Your task to perform on an android device: Show the shopping cart on ebay.com. Image 0: 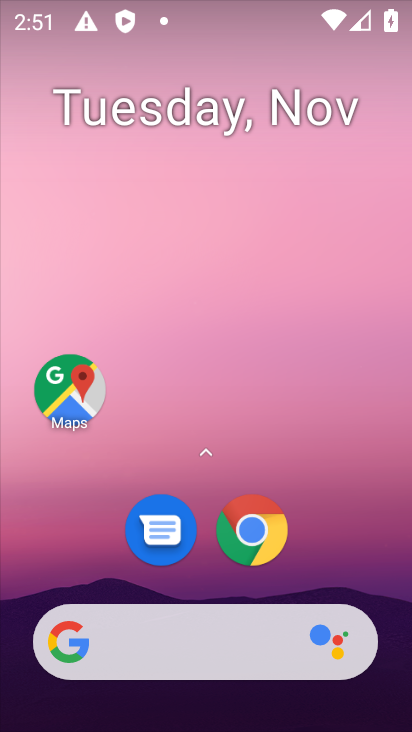
Step 0: drag from (245, 690) to (255, 117)
Your task to perform on an android device: Show the shopping cart on ebay.com. Image 1: 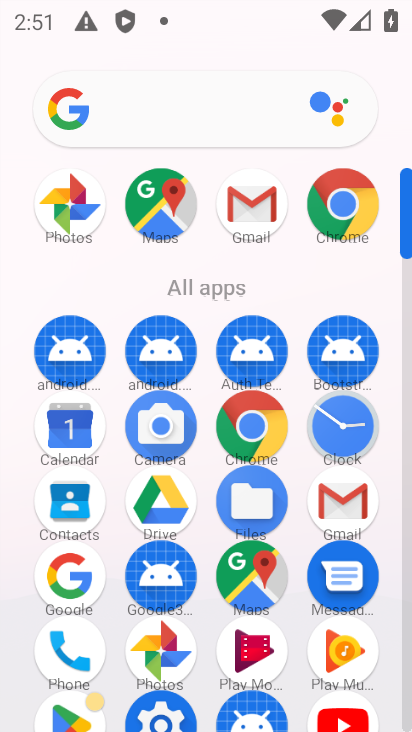
Step 1: click (248, 420)
Your task to perform on an android device: Show the shopping cart on ebay.com. Image 2: 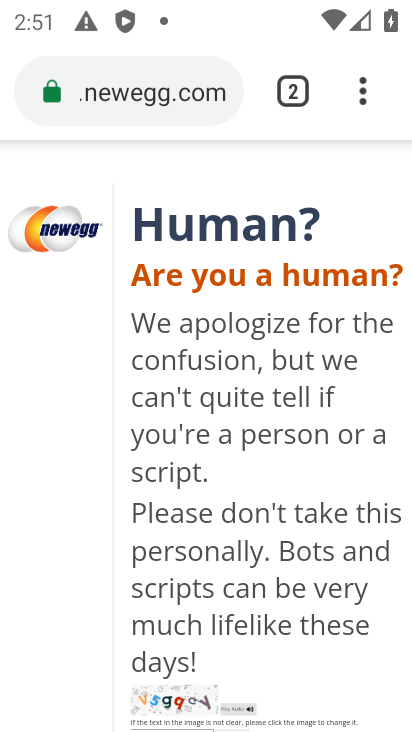
Step 2: click (126, 94)
Your task to perform on an android device: Show the shopping cart on ebay.com. Image 3: 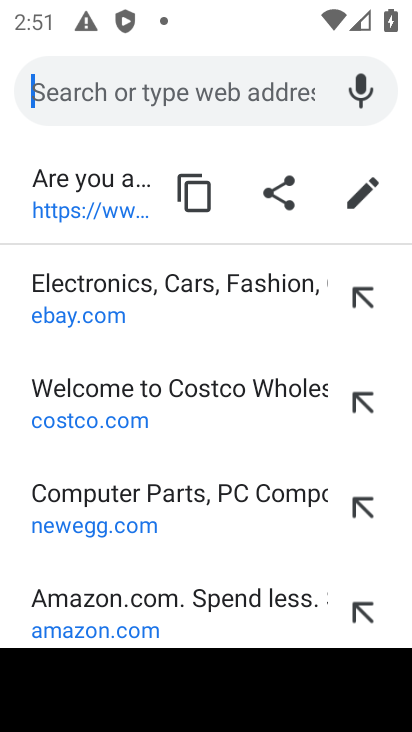
Step 3: type "ebay.com."
Your task to perform on an android device: Show the shopping cart on ebay.com. Image 4: 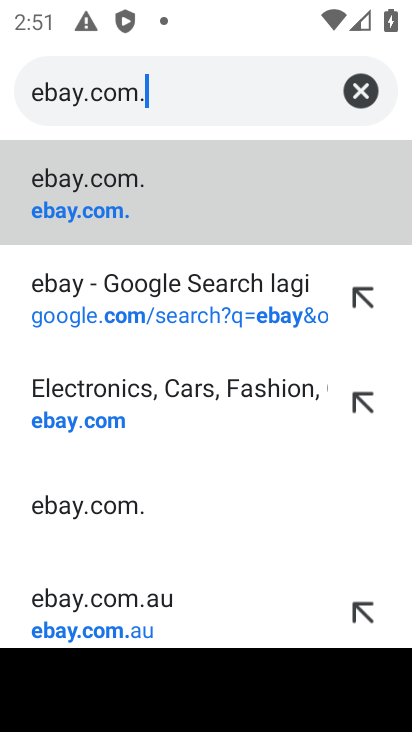
Step 4: click (78, 214)
Your task to perform on an android device: Show the shopping cart on ebay.com. Image 5: 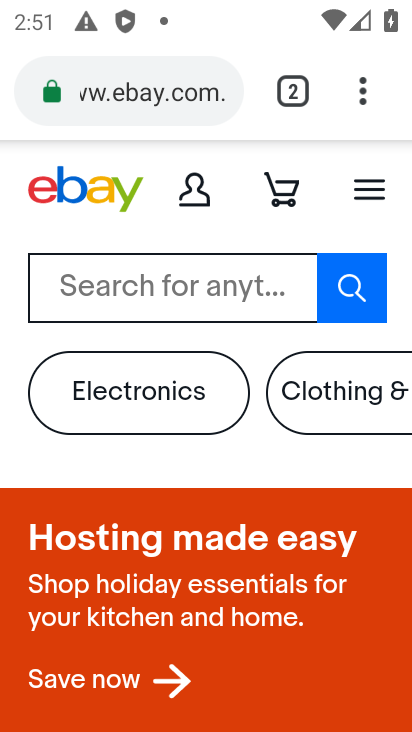
Step 5: click (128, 275)
Your task to perform on an android device: Show the shopping cart on ebay.com. Image 6: 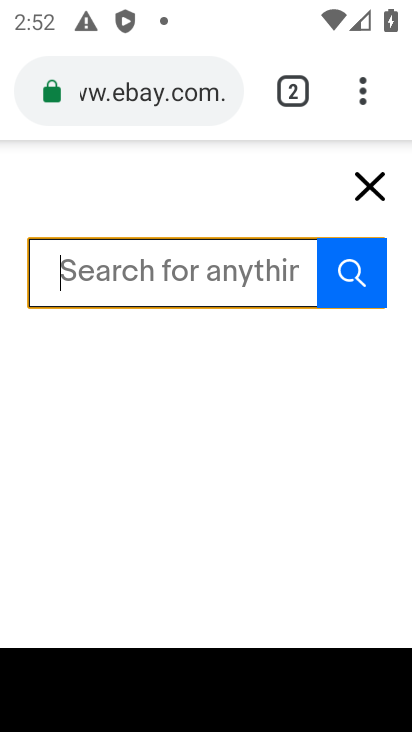
Step 6: click (372, 182)
Your task to perform on an android device: Show the shopping cart on ebay.com. Image 7: 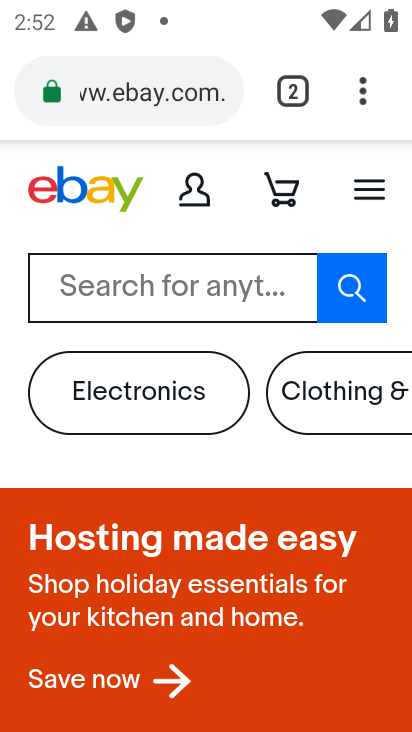
Step 7: click (285, 190)
Your task to perform on an android device: Show the shopping cart on ebay.com. Image 8: 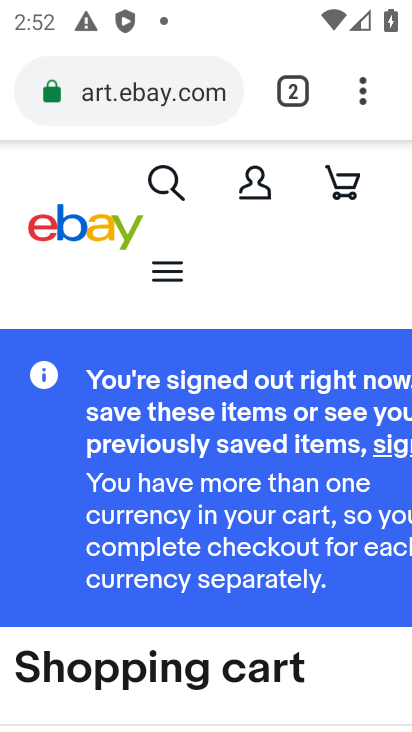
Step 8: drag from (247, 477) to (300, 88)
Your task to perform on an android device: Show the shopping cart on ebay.com. Image 9: 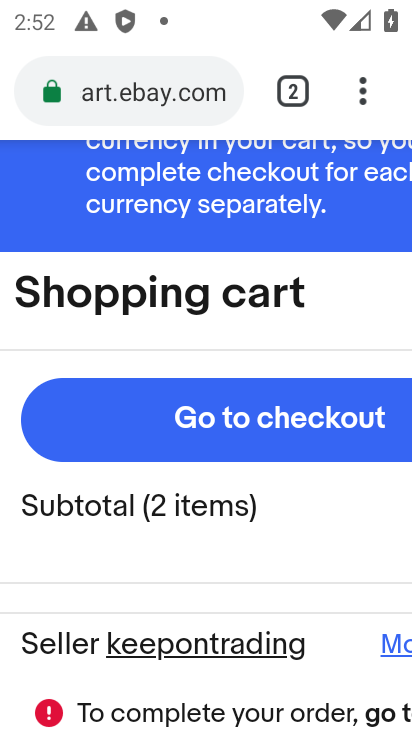
Step 9: drag from (233, 628) to (268, 272)
Your task to perform on an android device: Show the shopping cart on ebay.com. Image 10: 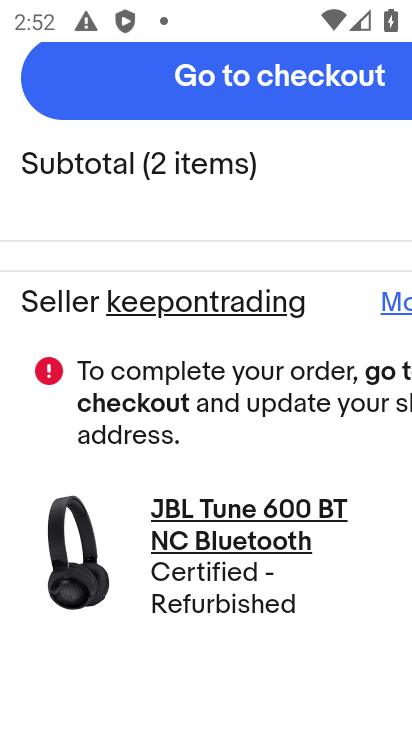
Step 10: drag from (328, 187) to (330, 728)
Your task to perform on an android device: Show the shopping cart on ebay.com. Image 11: 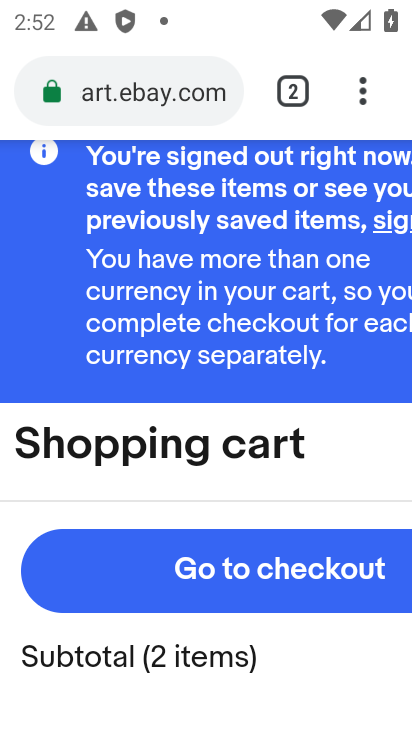
Step 11: drag from (289, 238) to (274, 551)
Your task to perform on an android device: Show the shopping cart on ebay.com. Image 12: 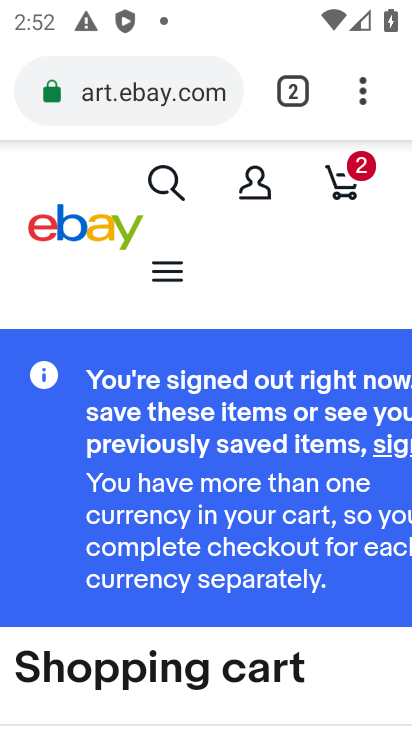
Step 12: click (352, 181)
Your task to perform on an android device: Show the shopping cart on ebay.com. Image 13: 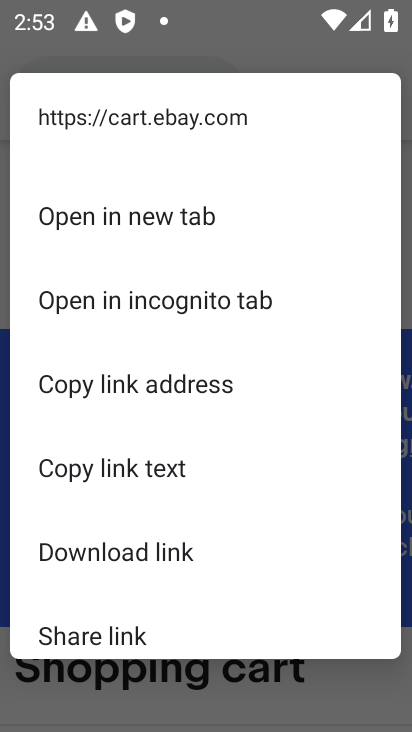
Step 13: click (230, 55)
Your task to perform on an android device: Show the shopping cart on ebay.com. Image 14: 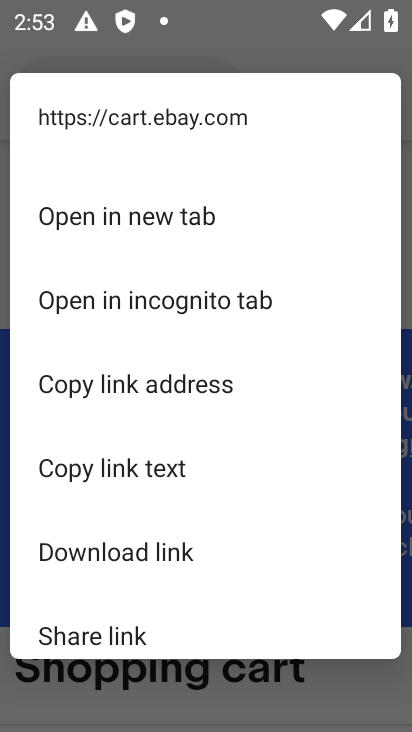
Step 14: click (282, 42)
Your task to perform on an android device: Show the shopping cart on ebay.com. Image 15: 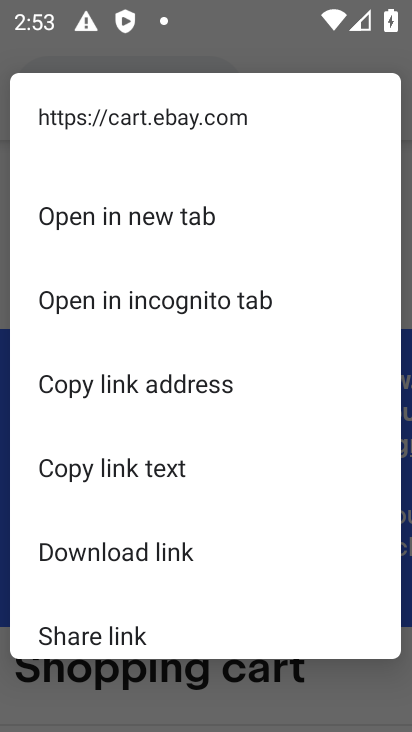
Step 15: press back button
Your task to perform on an android device: Show the shopping cart on ebay.com. Image 16: 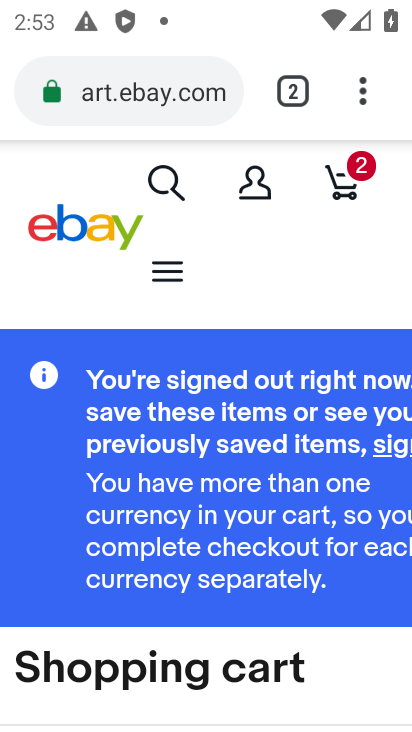
Step 16: click (352, 175)
Your task to perform on an android device: Show the shopping cart on ebay.com. Image 17: 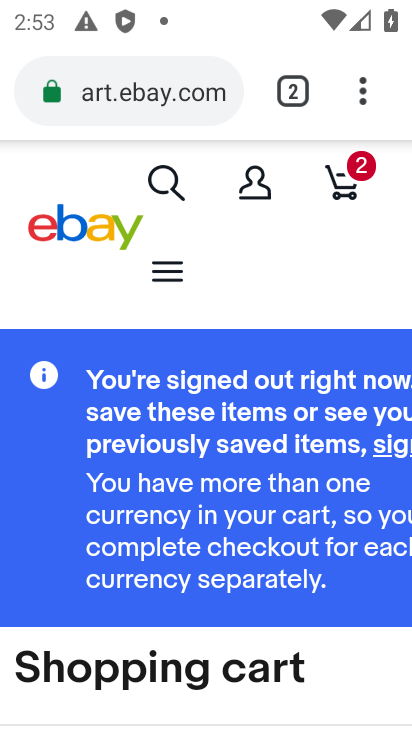
Step 17: drag from (349, 440) to (298, 486)
Your task to perform on an android device: Show the shopping cart on ebay.com. Image 18: 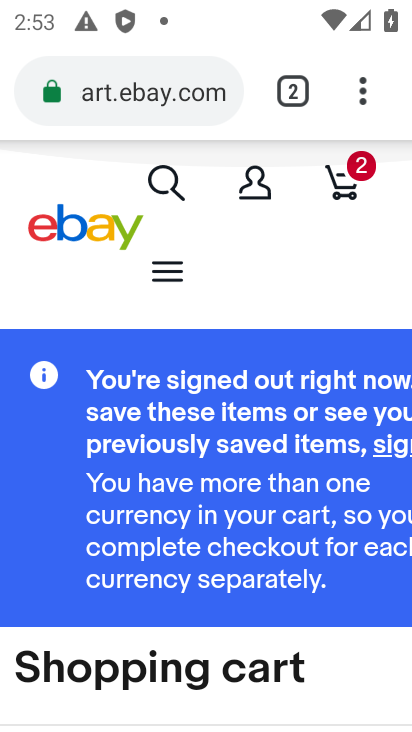
Step 18: drag from (297, 463) to (245, 97)
Your task to perform on an android device: Show the shopping cart on ebay.com. Image 19: 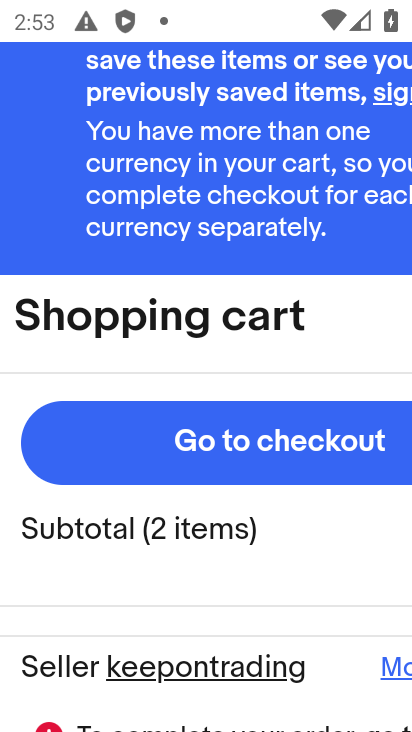
Step 19: drag from (249, 539) to (313, 169)
Your task to perform on an android device: Show the shopping cart on ebay.com. Image 20: 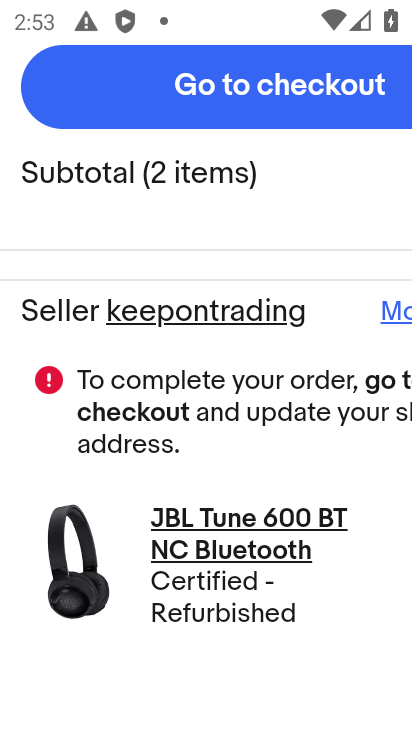
Step 20: drag from (368, 527) to (387, 134)
Your task to perform on an android device: Show the shopping cart on ebay.com. Image 21: 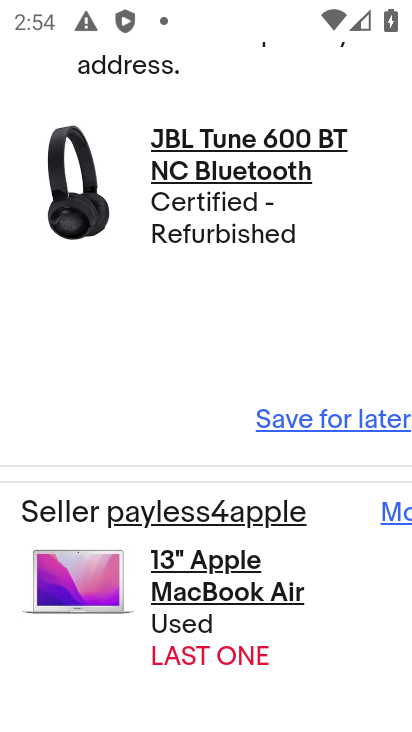
Step 21: drag from (319, 465) to (68, 436)
Your task to perform on an android device: Show the shopping cart on ebay.com. Image 22: 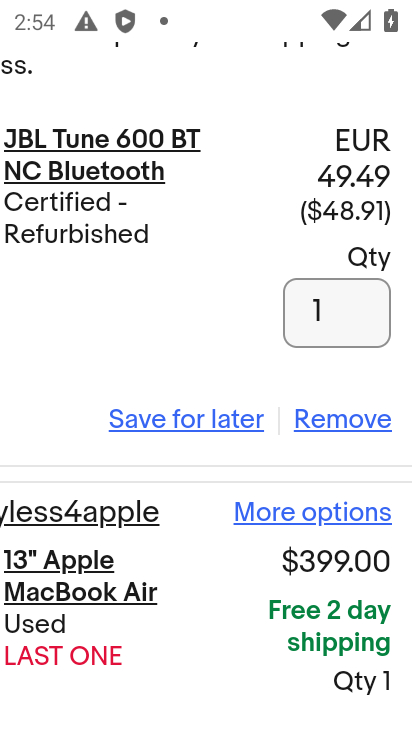
Step 22: click (311, 419)
Your task to perform on an android device: Show the shopping cart on ebay.com. Image 23: 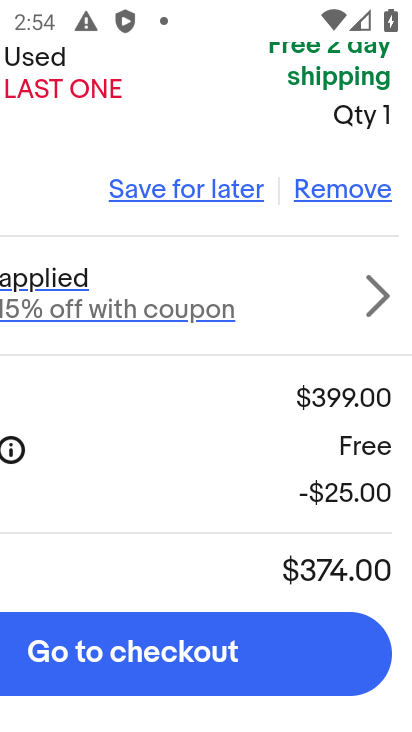
Step 23: click (349, 191)
Your task to perform on an android device: Show the shopping cart on ebay.com. Image 24: 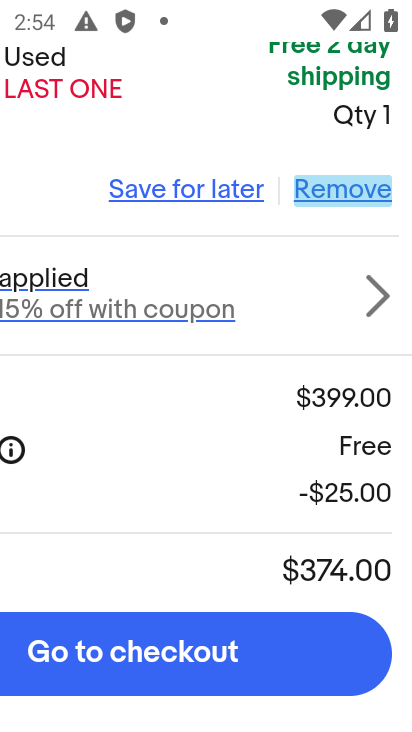
Step 24: click (349, 191)
Your task to perform on an android device: Show the shopping cart on ebay.com. Image 25: 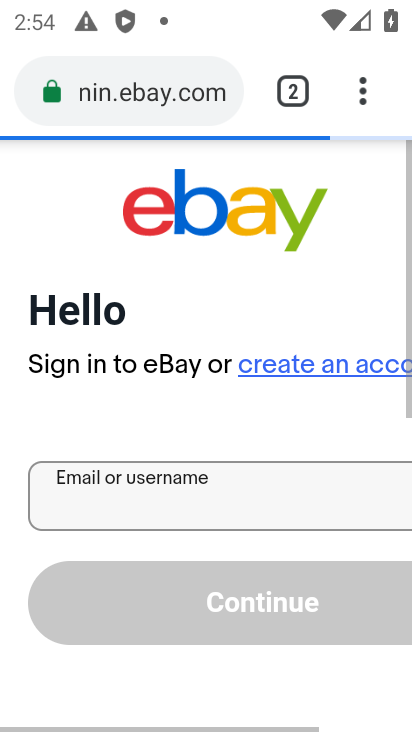
Step 25: drag from (317, 357) to (284, 655)
Your task to perform on an android device: Show the shopping cart on ebay.com. Image 26: 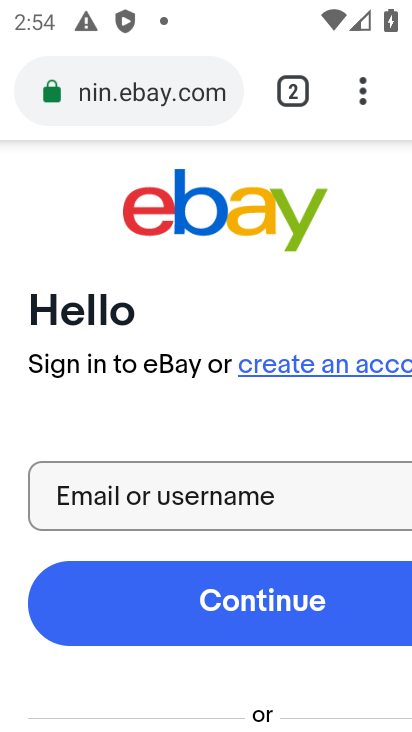
Step 26: drag from (277, 425) to (215, 643)
Your task to perform on an android device: Show the shopping cart on ebay.com. Image 27: 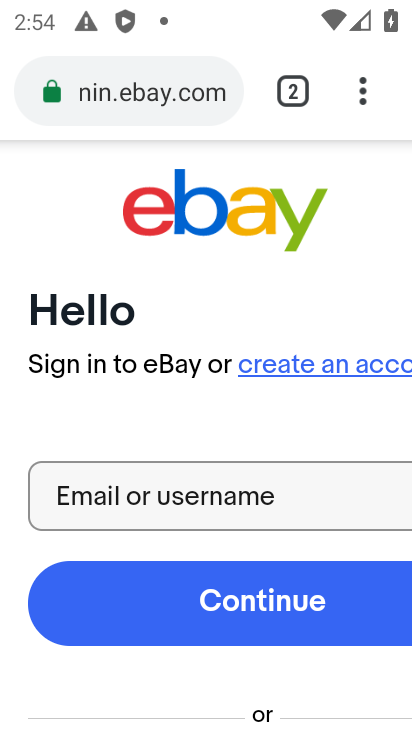
Step 27: click (189, 92)
Your task to perform on an android device: Show the shopping cart on ebay.com. Image 28: 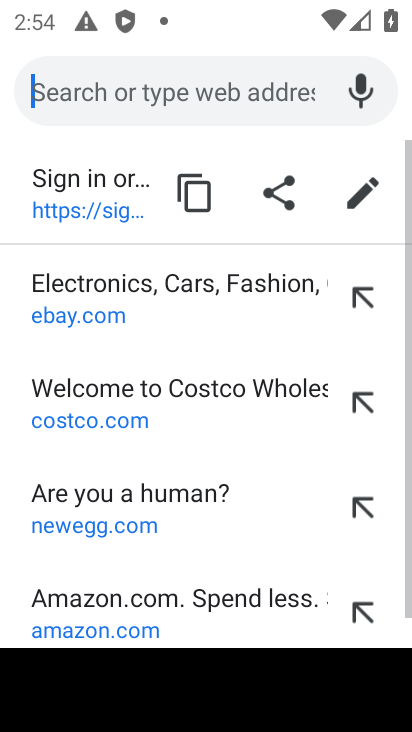
Step 28: click (92, 317)
Your task to perform on an android device: Show the shopping cart on ebay.com. Image 29: 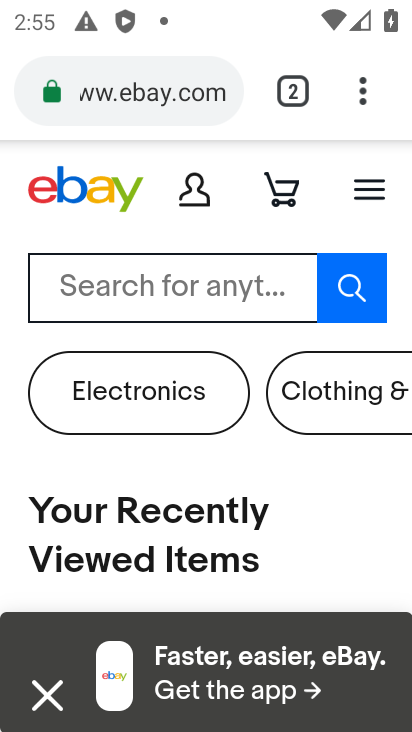
Step 29: drag from (287, 495) to (286, 163)
Your task to perform on an android device: Show the shopping cart on ebay.com. Image 30: 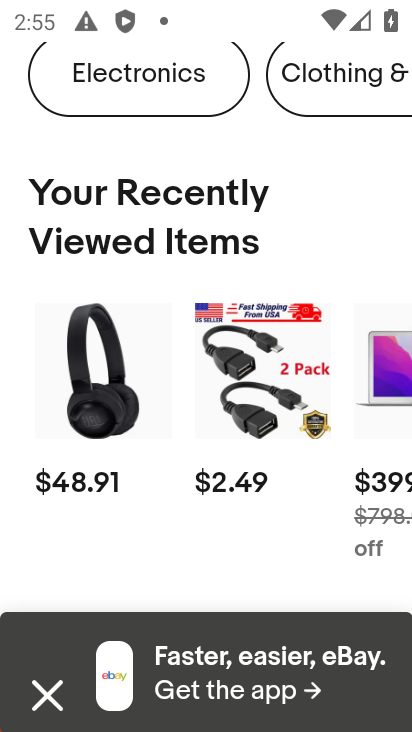
Step 30: drag from (332, 215) to (294, 564)
Your task to perform on an android device: Show the shopping cart on ebay.com. Image 31: 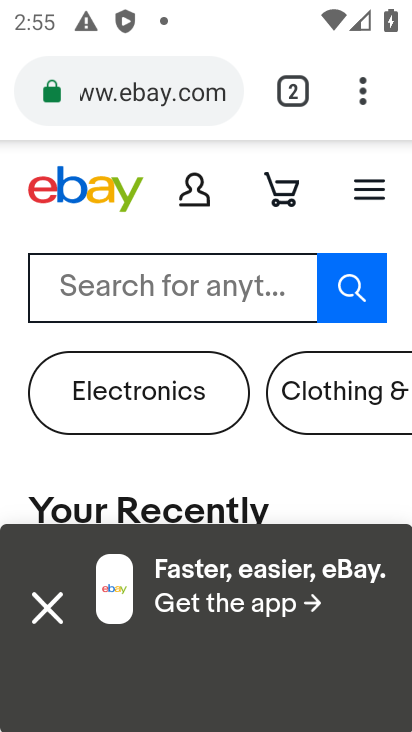
Step 31: click (46, 609)
Your task to perform on an android device: Show the shopping cart on ebay.com. Image 32: 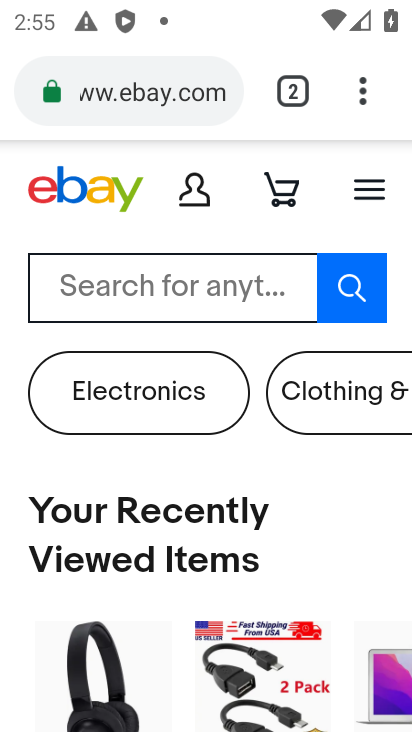
Step 32: task complete